Your task to perform on an android device: refresh tabs in the chrome app Image 0: 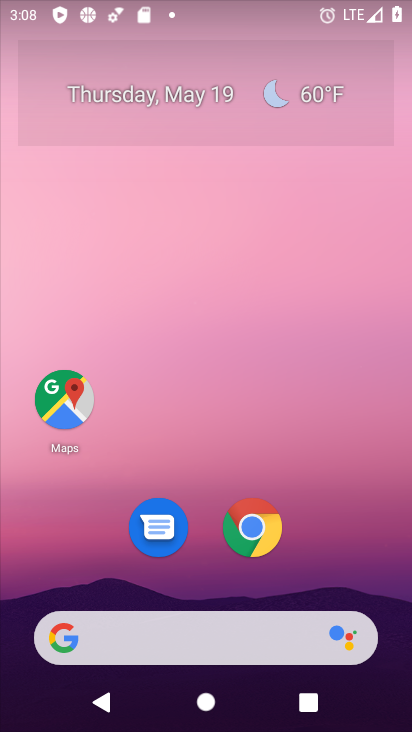
Step 0: click (249, 521)
Your task to perform on an android device: refresh tabs in the chrome app Image 1: 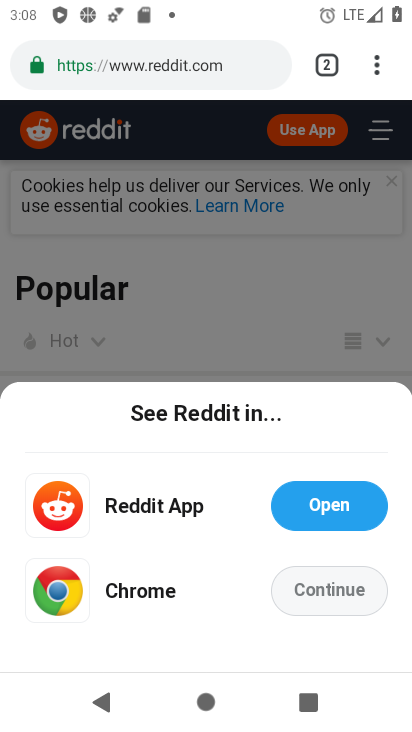
Step 1: click (380, 56)
Your task to perform on an android device: refresh tabs in the chrome app Image 2: 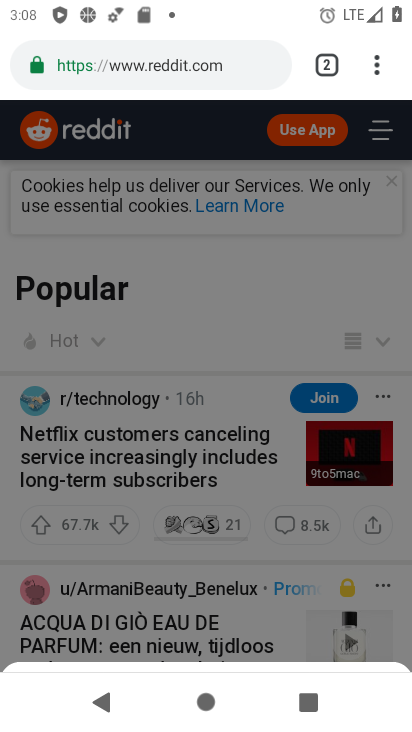
Step 2: task complete